Your task to perform on an android device: Show me recent news Image 0: 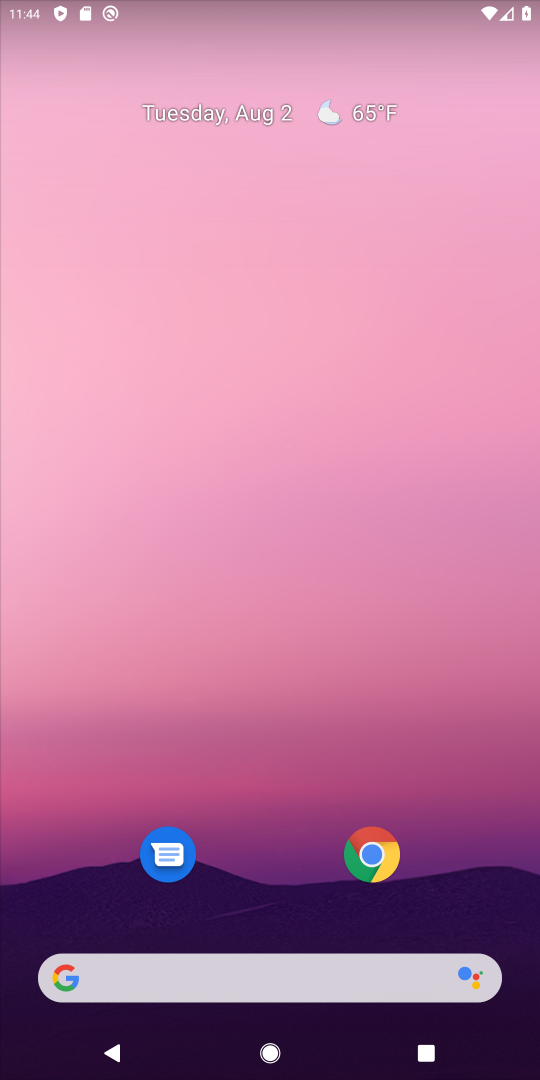
Step 0: click (284, 970)
Your task to perform on an android device: Show me recent news Image 1: 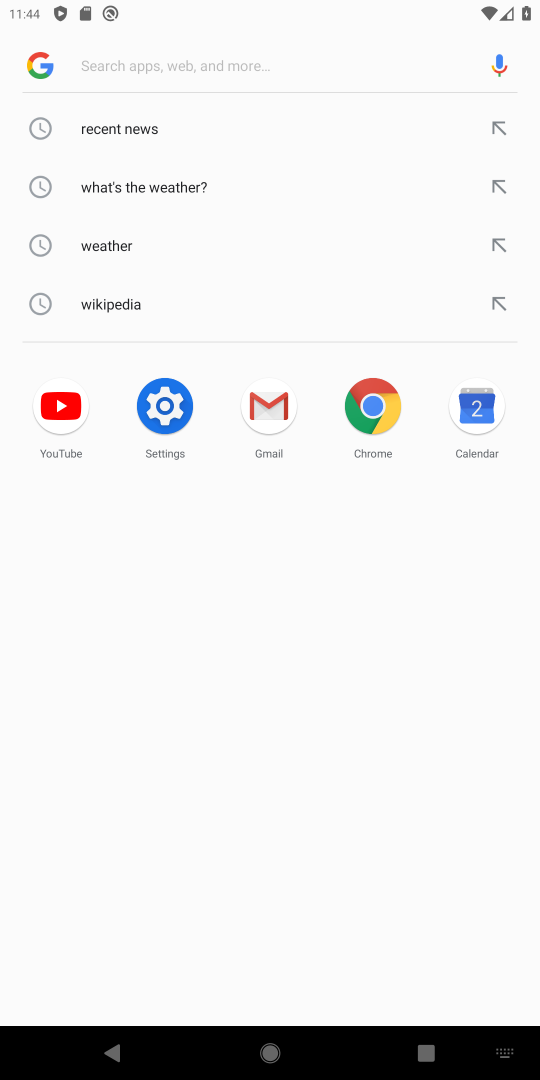
Step 1: click (186, 127)
Your task to perform on an android device: Show me recent news Image 2: 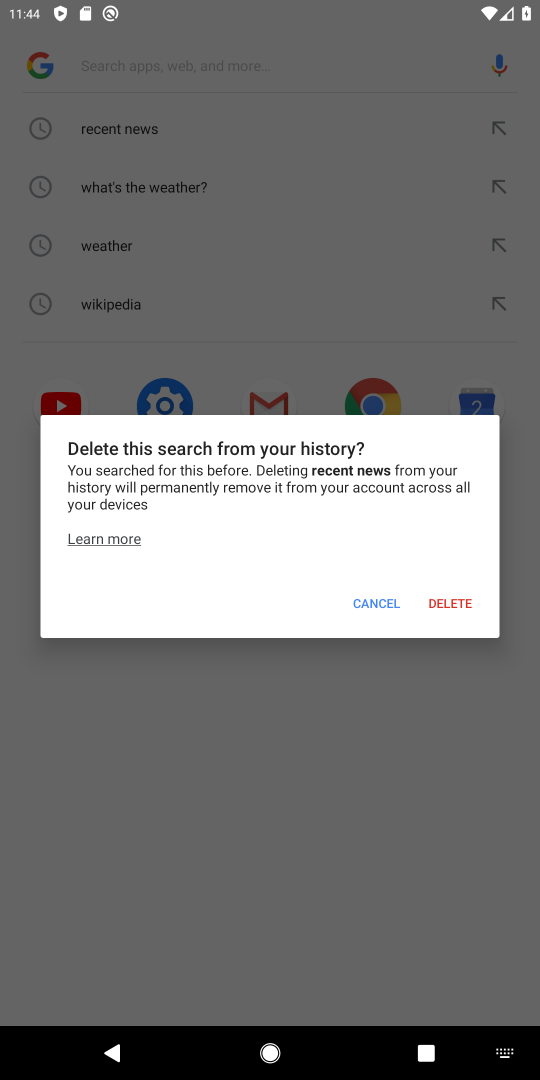
Step 2: click (375, 603)
Your task to perform on an android device: Show me recent news Image 3: 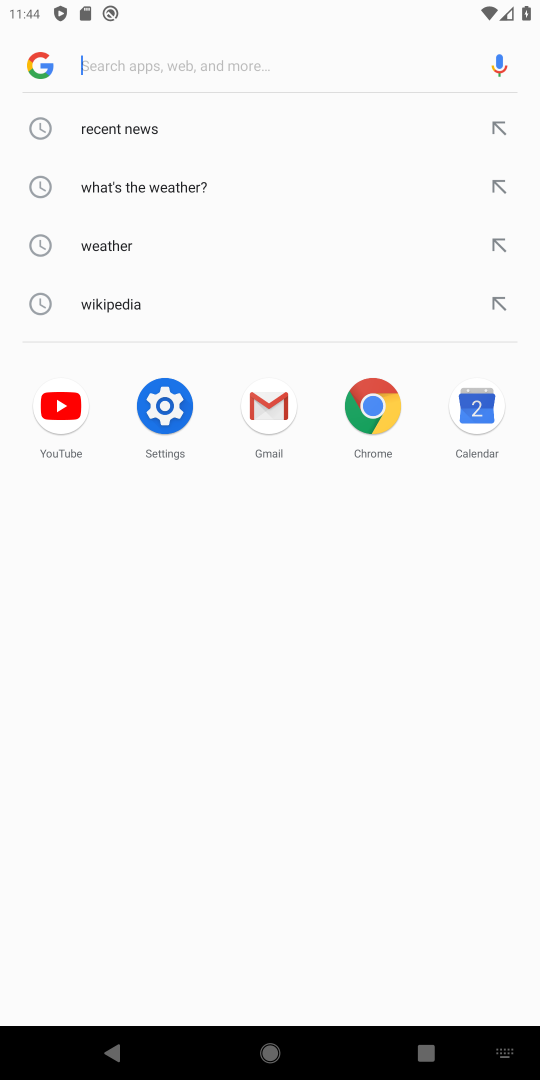
Step 3: click (103, 126)
Your task to perform on an android device: Show me recent news Image 4: 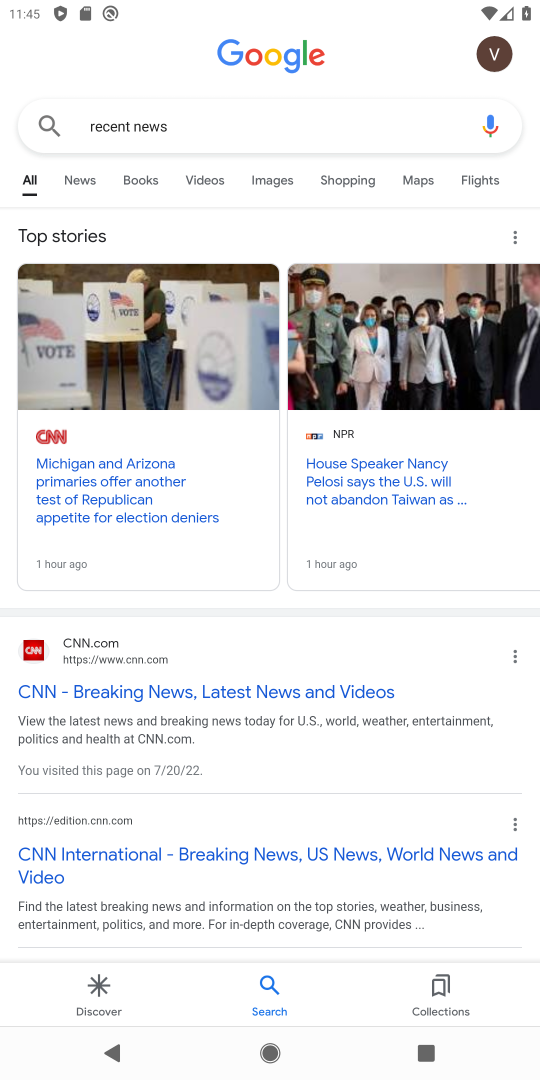
Step 4: task complete